Your task to perform on an android device: Show the shopping cart on target. Add razer nari to the cart on target Image 0: 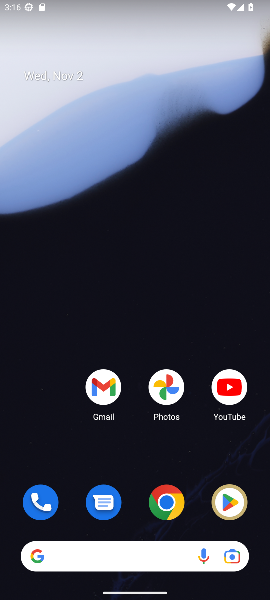
Step 0: click (170, 502)
Your task to perform on an android device: Show the shopping cart on target. Add razer nari to the cart on target Image 1: 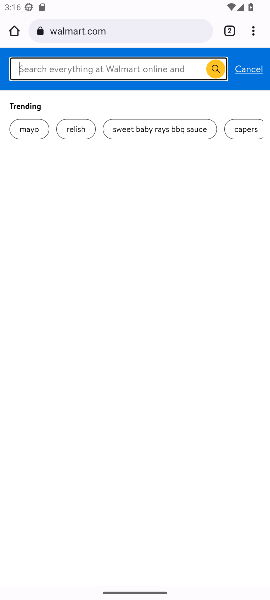
Step 1: press home button
Your task to perform on an android device: Show the shopping cart on target. Add razer nari to the cart on target Image 2: 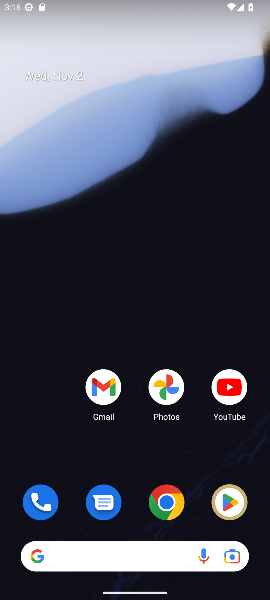
Step 2: click (165, 504)
Your task to perform on an android device: Show the shopping cart on target. Add razer nari to the cart on target Image 3: 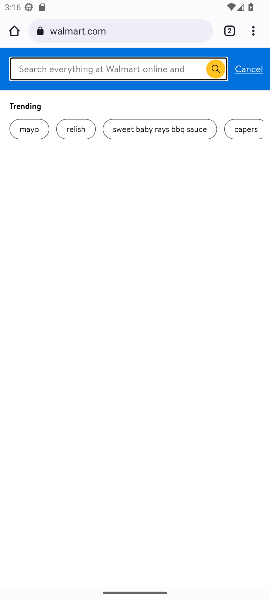
Step 3: type "shopping "
Your task to perform on an android device: Show the shopping cart on target. Add razer nari to the cart on target Image 4: 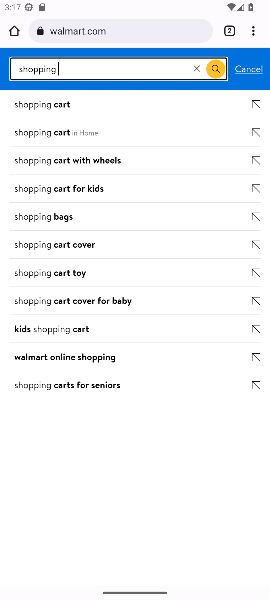
Step 4: drag from (254, 37) to (143, 68)
Your task to perform on an android device: Show the shopping cart on target. Add razer nari to the cart on target Image 5: 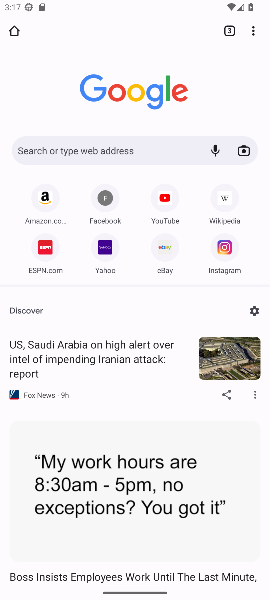
Step 5: click (154, 147)
Your task to perform on an android device: Show the shopping cart on target. Add razer nari to the cart on target Image 6: 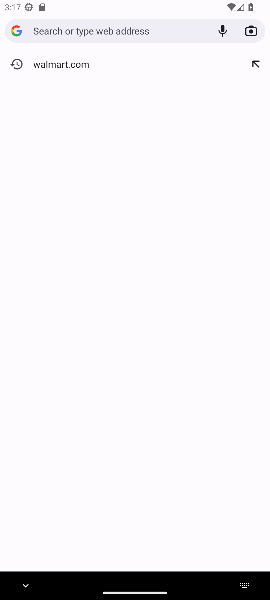
Step 6: type "Show the shopping cart on target."
Your task to perform on an android device: Show the shopping cart on target. Add razer nari to the cart on target Image 7: 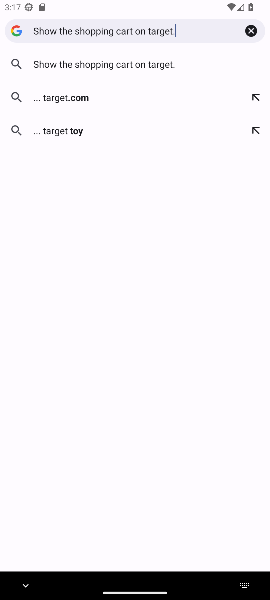
Step 7: click (135, 63)
Your task to perform on an android device: Show the shopping cart on target. Add razer nari to the cart on target Image 8: 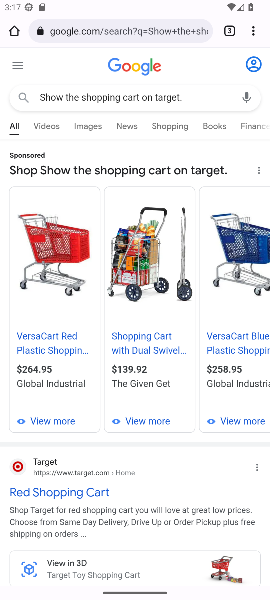
Step 8: click (76, 487)
Your task to perform on an android device: Show the shopping cart on target. Add razer nari to the cart on target Image 9: 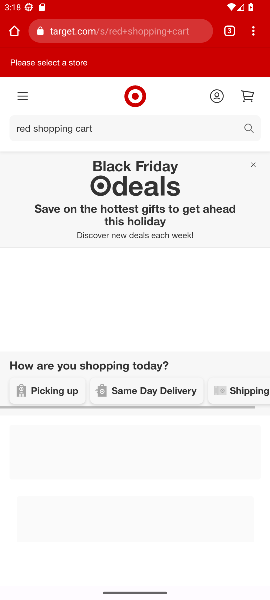
Step 9: click (112, 127)
Your task to perform on an android device: Show the shopping cart on target. Add razer nari to the cart on target Image 10: 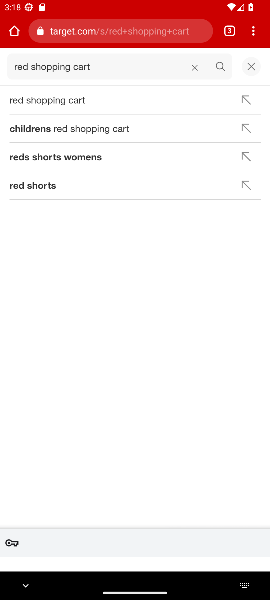
Step 10: click (195, 65)
Your task to perform on an android device: Show the shopping cart on target. Add razer nari to the cart on target Image 11: 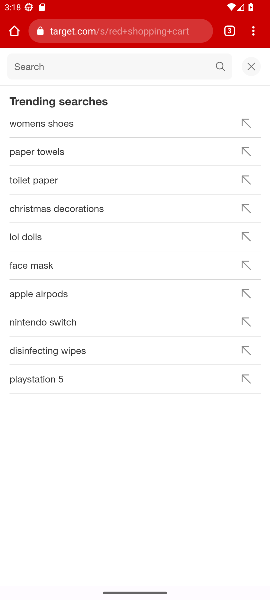
Step 11: type " razer nari "
Your task to perform on an android device: Show the shopping cart on target. Add razer nari to the cart on target Image 12: 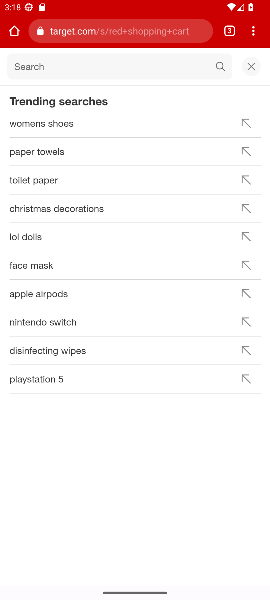
Step 12: type ""
Your task to perform on an android device: Show the shopping cart on target. Add razer nari to the cart on target Image 13: 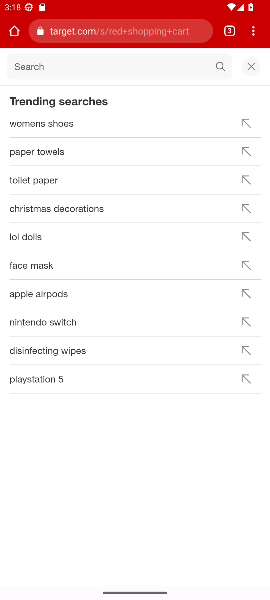
Step 13: click (81, 69)
Your task to perform on an android device: Show the shopping cart on target. Add razer nari to the cart on target Image 14: 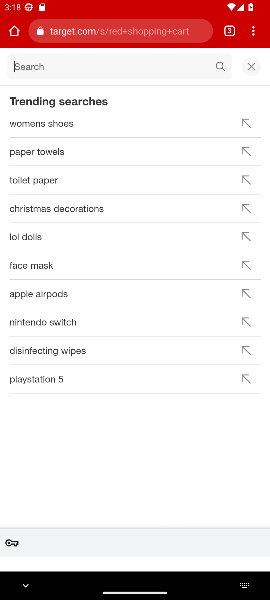
Step 14: type " razer nari "
Your task to perform on an android device: Show the shopping cart on target. Add razer nari to the cart on target Image 15: 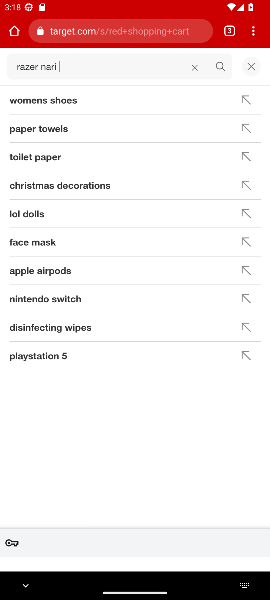
Step 15: type ""
Your task to perform on an android device: Show the shopping cart on target. Add razer nari to the cart on target Image 16: 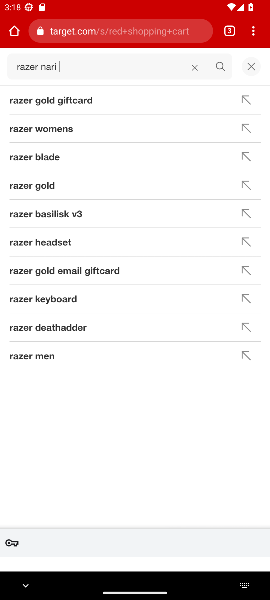
Step 16: click (223, 66)
Your task to perform on an android device: Show the shopping cart on target. Add razer nari to the cart on target Image 17: 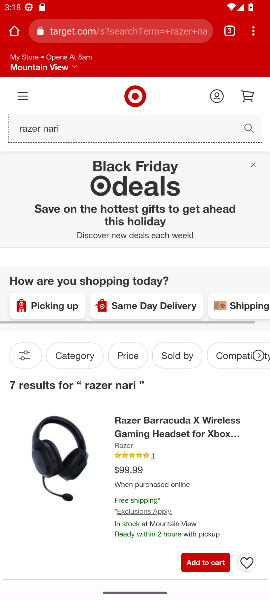
Step 17: click (161, 421)
Your task to perform on an android device: Show the shopping cart on target. Add razer nari to the cart on target Image 18: 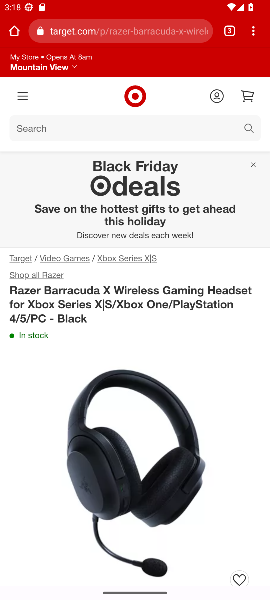
Step 18: drag from (98, 483) to (76, 194)
Your task to perform on an android device: Show the shopping cart on target. Add razer nari to the cart on target Image 19: 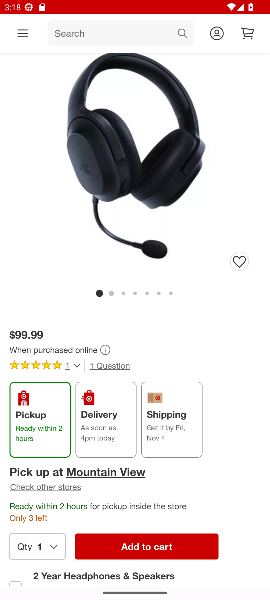
Step 19: click (141, 545)
Your task to perform on an android device: Show the shopping cart on target. Add razer nari to the cart on target Image 20: 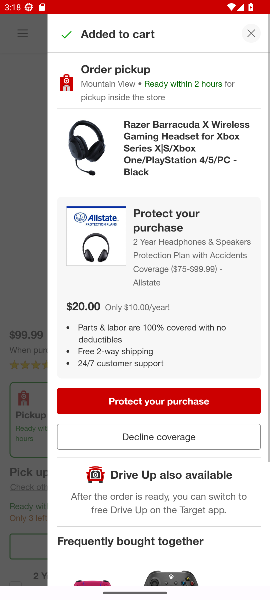
Step 20: task complete